Your task to perform on an android device: Open calendar and show me the fourth week of next month Image 0: 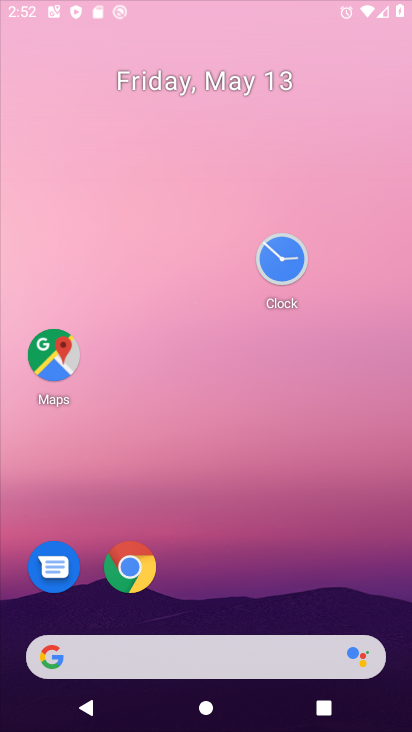
Step 0: drag from (323, 610) to (225, 83)
Your task to perform on an android device: Open calendar and show me the fourth week of next month Image 1: 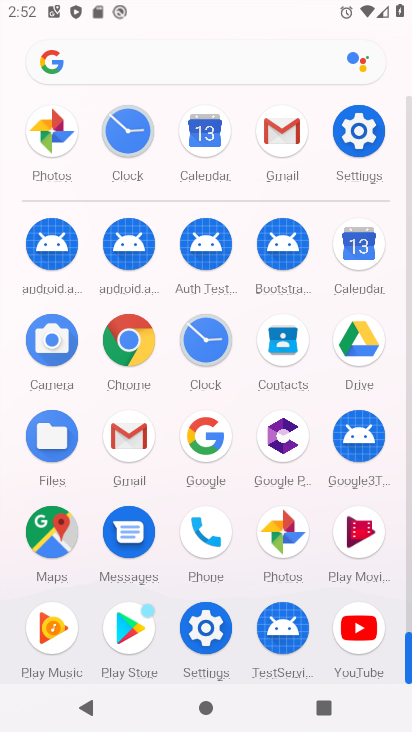
Step 1: click (117, 130)
Your task to perform on an android device: Open calendar and show me the fourth week of next month Image 2: 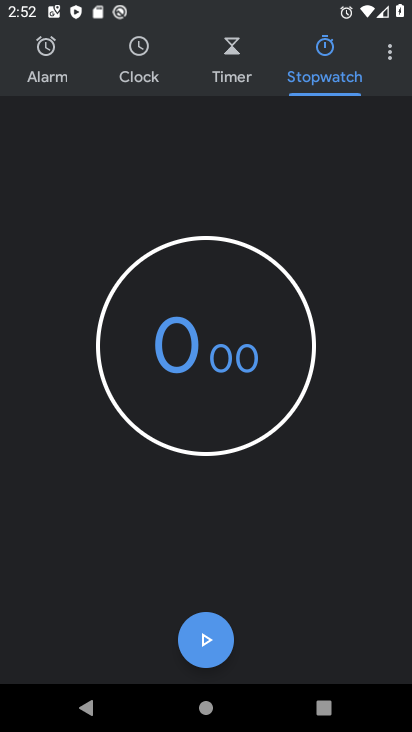
Step 2: press home button
Your task to perform on an android device: Open calendar and show me the fourth week of next month Image 3: 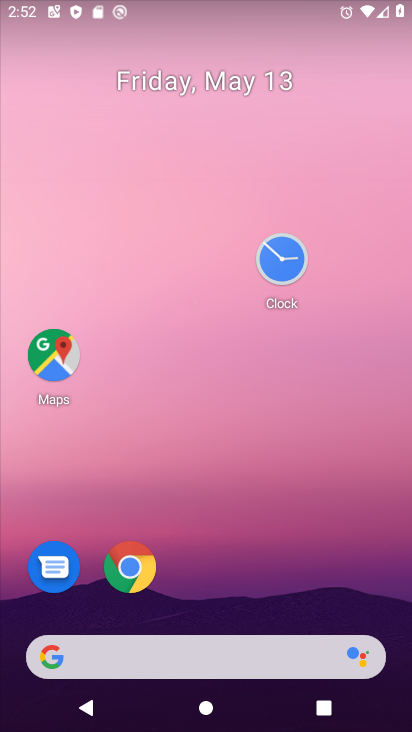
Step 3: drag from (305, 582) to (297, 192)
Your task to perform on an android device: Open calendar and show me the fourth week of next month Image 4: 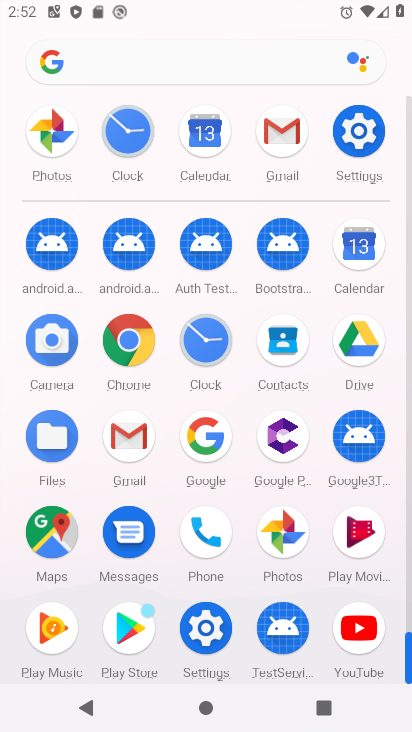
Step 4: click (349, 273)
Your task to perform on an android device: Open calendar and show me the fourth week of next month Image 5: 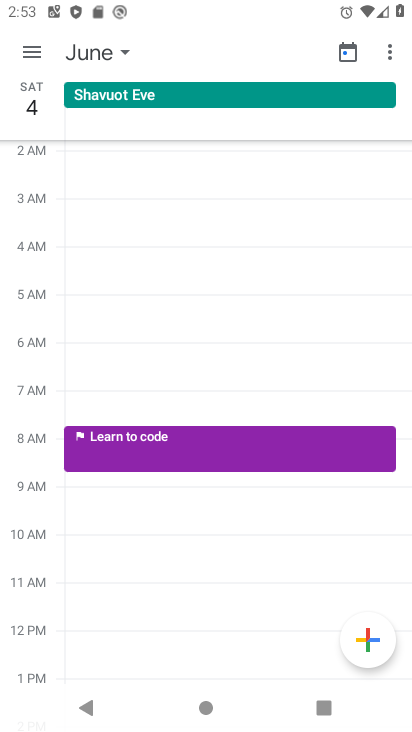
Step 5: click (69, 53)
Your task to perform on an android device: Open calendar and show me the fourth week of next month Image 6: 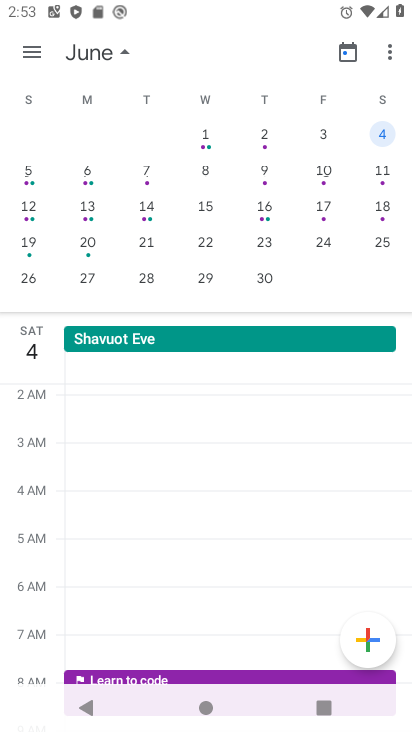
Step 6: click (256, 248)
Your task to perform on an android device: Open calendar and show me the fourth week of next month Image 7: 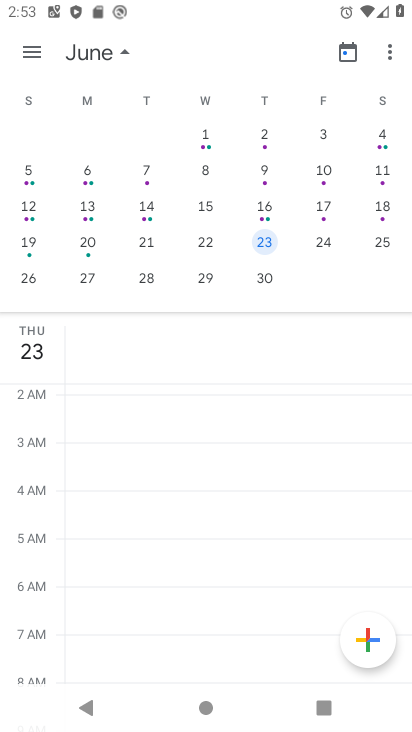
Step 7: task complete